Your task to perform on an android device: Go to location settings Image 0: 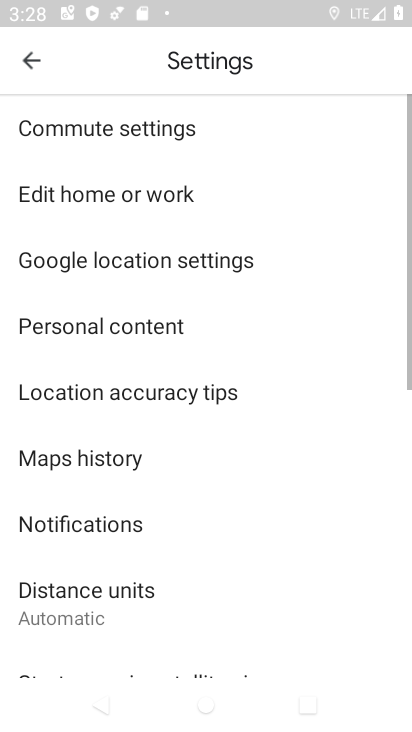
Step 0: press home button
Your task to perform on an android device: Go to location settings Image 1: 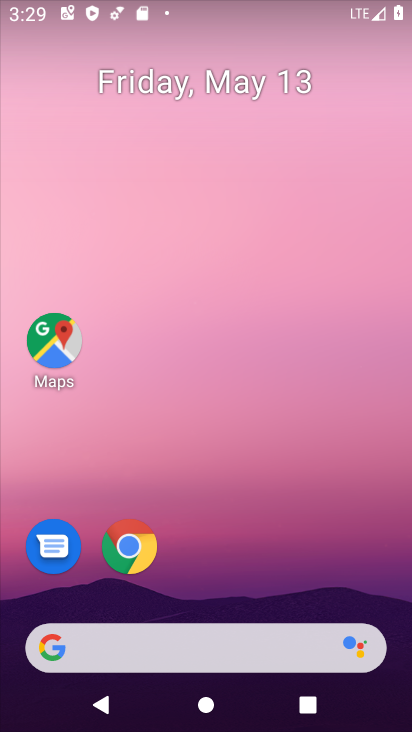
Step 1: drag from (231, 607) to (211, 113)
Your task to perform on an android device: Go to location settings Image 2: 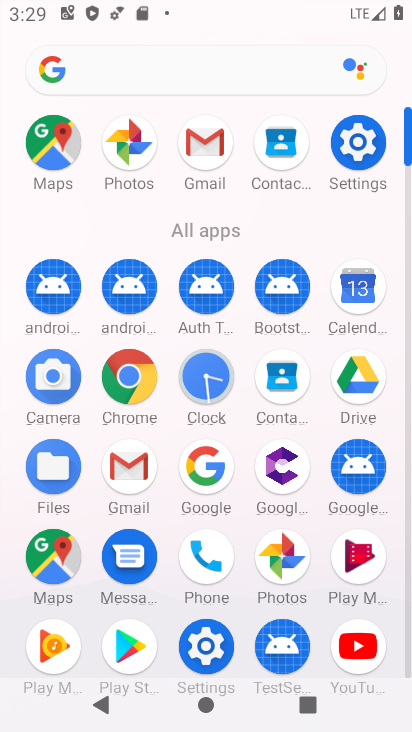
Step 2: click (343, 128)
Your task to perform on an android device: Go to location settings Image 3: 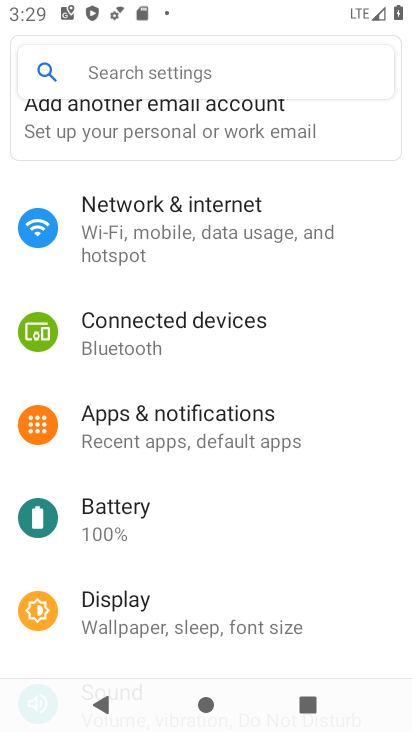
Step 3: drag from (111, 595) to (194, 38)
Your task to perform on an android device: Go to location settings Image 4: 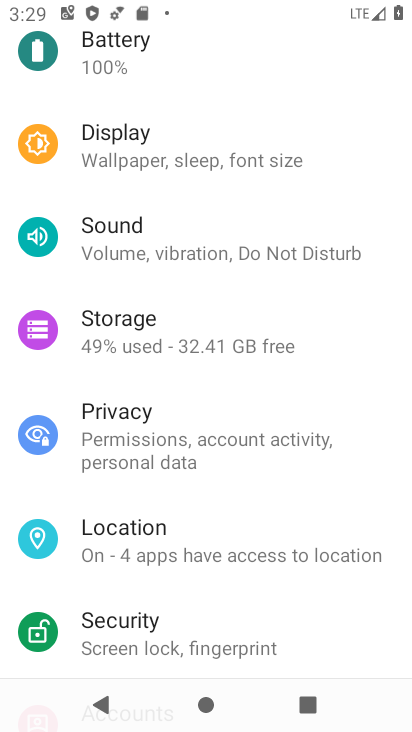
Step 4: click (164, 556)
Your task to perform on an android device: Go to location settings Image 5: 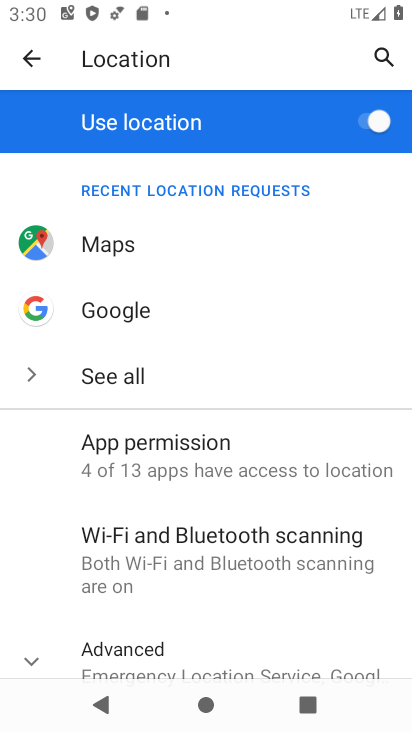
Step 5: task complete